Your task to perform on an android device: Install the Uber app Image 0: 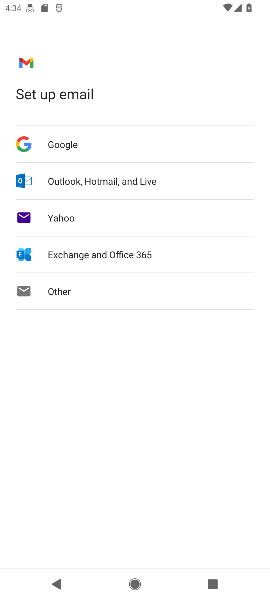
Step 0: press home button
Your task to perform on an android device: Install the Uber app Image 1: 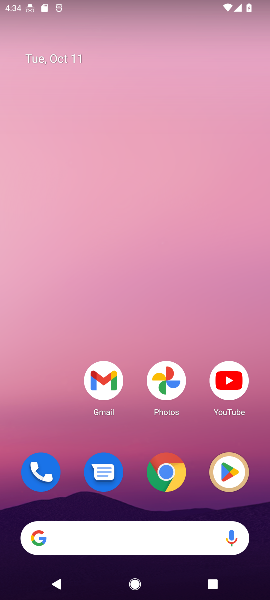
Step 1: click (220, 480)
Your task to perform on an android device: Install the Uber app Image 2: 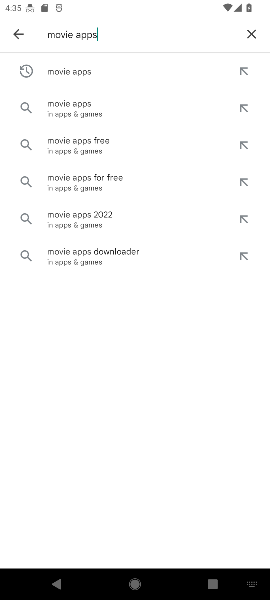
Step 2: click (254, 29)
Your task to perform on an android device: Install the Uber app Image 3: 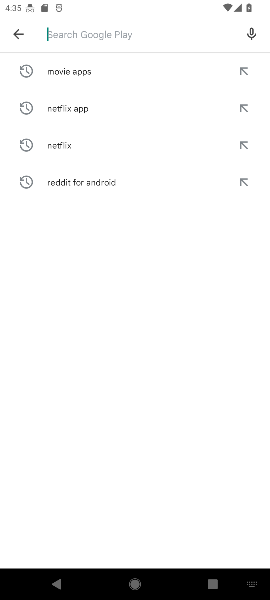
Step 3: type "uber"
Your task to perform on an android device: Install the Uber app Image 4: 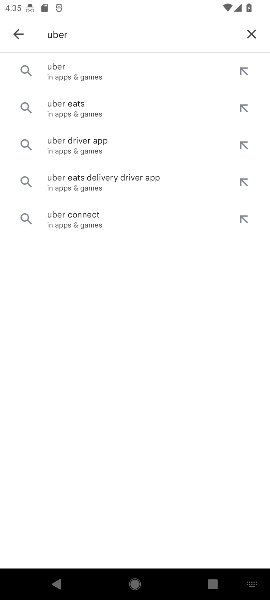
Step 4: click (135, 73)
Your task to perform on an android device: Install the Uber app Image 5: 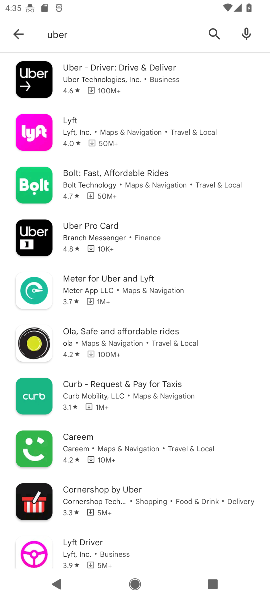
Step 5: click (135, 73)
Your task to perform on an android device: Install the Uber app Image 6: 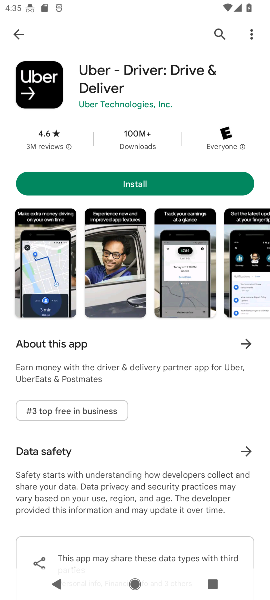
Step 6: click (190, 181)
Your task to perform on an android device: Install the Uber app Image 7: 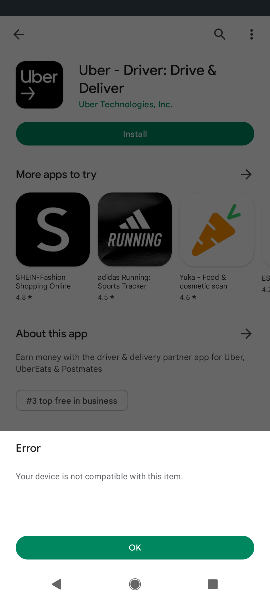
Step 7: click (156, 554)
Your task to perform on an android device: Install the Uber app Image 8: 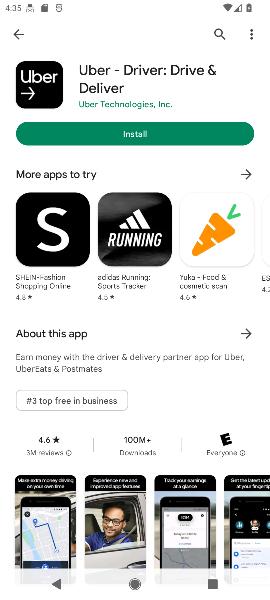
Step 8: click (161, 141)
Your task to perform on an android device: Install the Uber app Image 9: 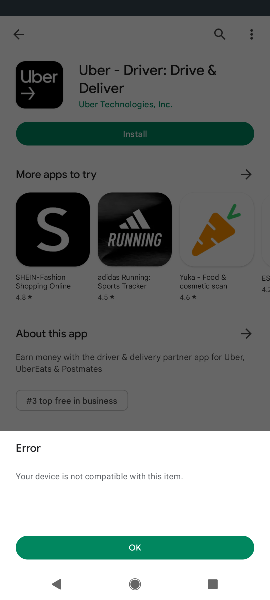
Step 9: click (135, 546)
Your task to perform on an android device: Install the Uber app Image 10: 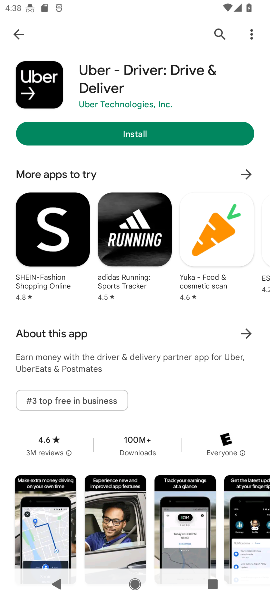
Step 10: task complete